Your task to perform on an android device: Open battery settings Image 0: 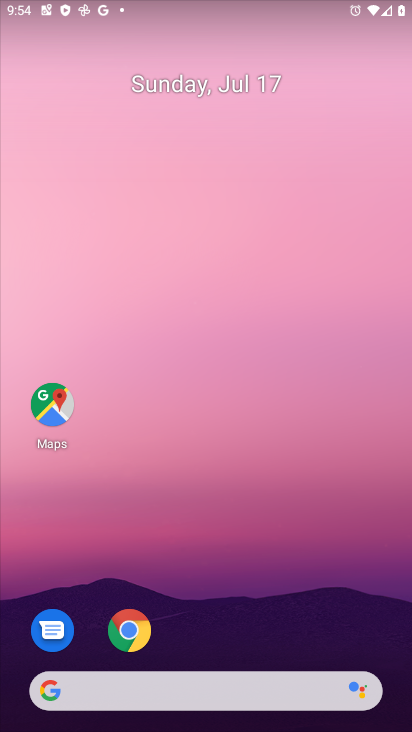
Step 0: drag from (176, 404) to (165, 155)
Your task to perform on an android device: Open battery settings Image 1: 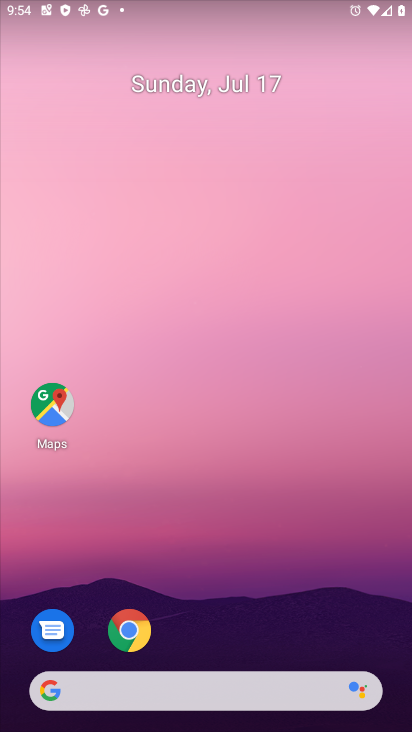
Step 1: drag from (196, 649) to (190, 121)
Your task to perform on an android device: Open battery settings Image 2: 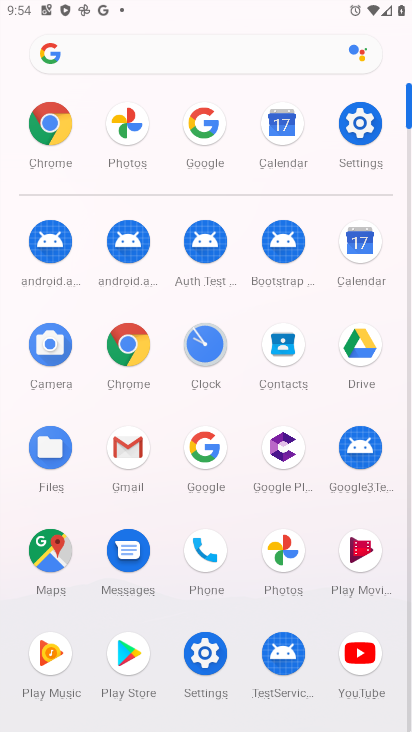
Step 2: click (353, 129)
Your task to perform on an android device: Open battery settings Image 3: 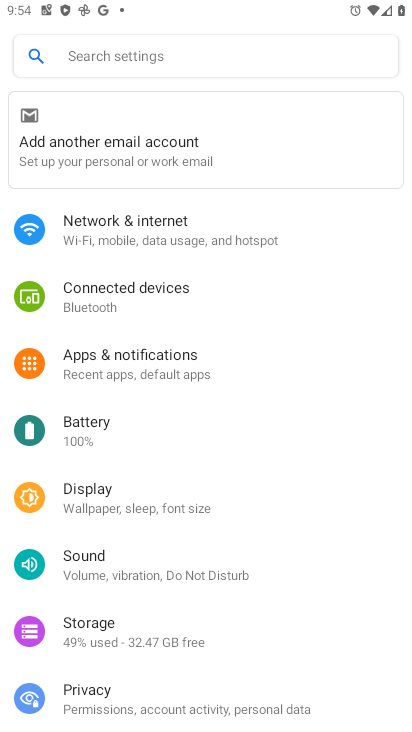
Step 3: click (77, 435)
Your task to perform on an android device: Open battery settings Image 4: 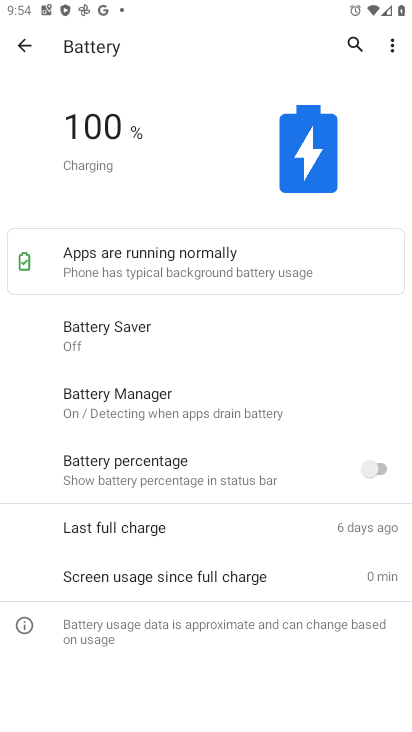
Step 4: task complete